Your task to perform on an android device: clear history in the chrome app Image 0: 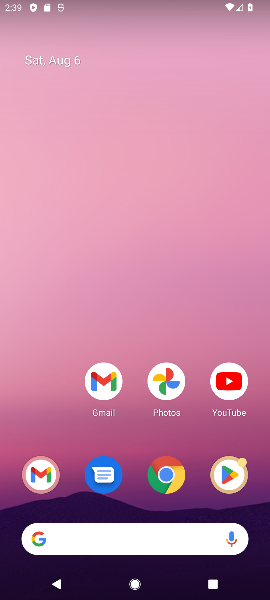
Step 0: click (180, 486)
Your task to perform on an android device: clear history in the chrome app Image 1: 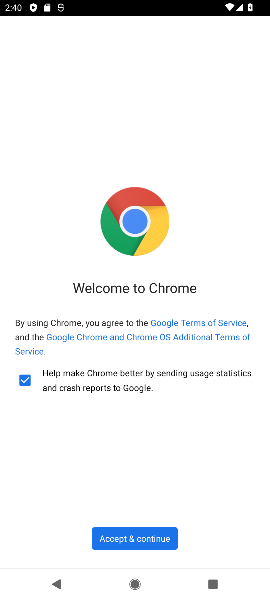
Step 1: click (142, 539)
Your task to perform on an android device: clear history in the chrome app Image 2: 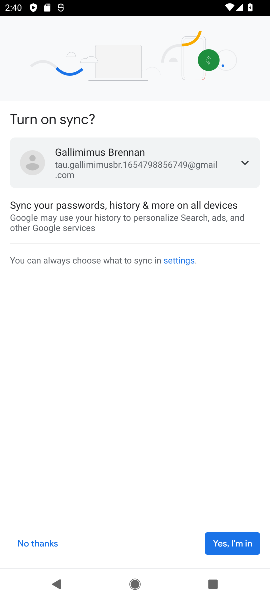
Step 2: click (231, 541)
Your task to perform on an android device: clear history in the chrome app Image 3: 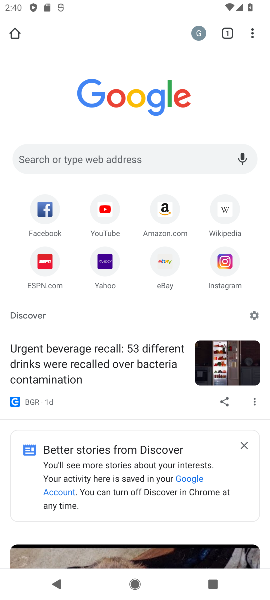
Step 3: click (251, 31)
Your task to perform on an android device: clear history in the chrome app Image 4: 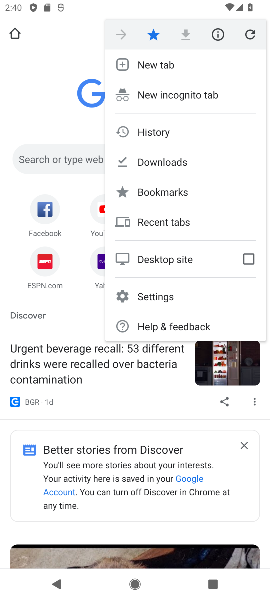
Step 4: click (157, 138)
Your task to perform on an android device: clear history in the chrome app Image 5: 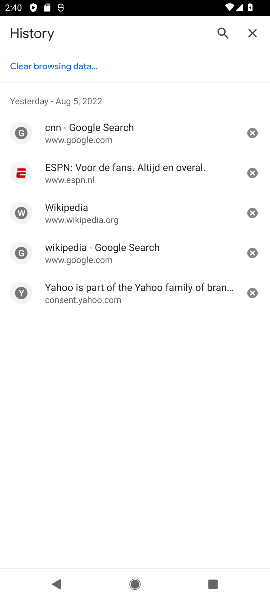
Step 5: click (54, 67)
Your task to perform on an android device: clear history in the chrome app Image 6: 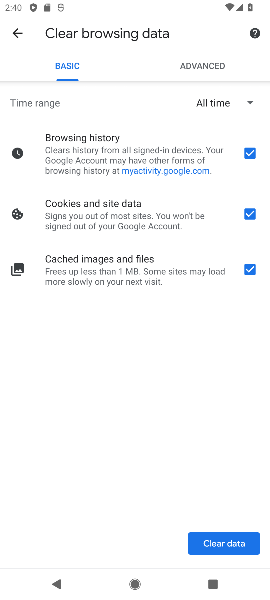
Step 6: click (250, 214)
Your task to perform on an android device: clear history in the chrome app Image 7: 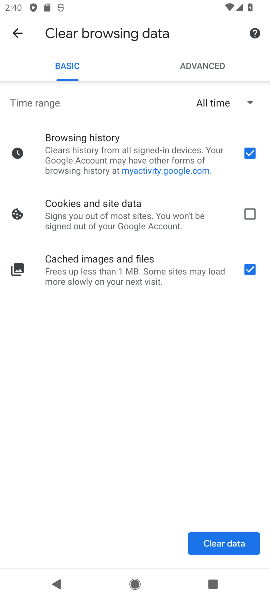
Step 7: click (250, 267)
Your task to perform on an android device: clear history in the chrome app Image 8: 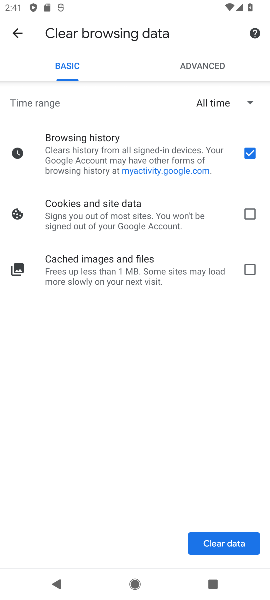
Step 8: click (222, 541)
Your task to perform on an android device: clear history in the chrome app Image 9: 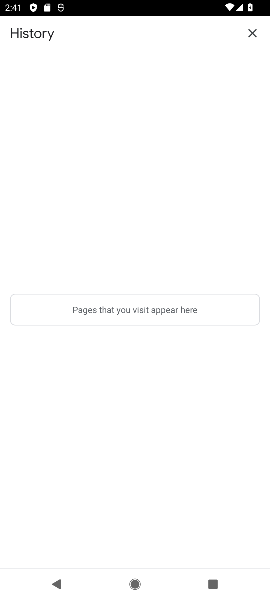
Step 9: task complete